Your task to perform on an android device: Clear the cart on costco. Add logitech g pro to the cart on costco, then select checkout. Image 0: 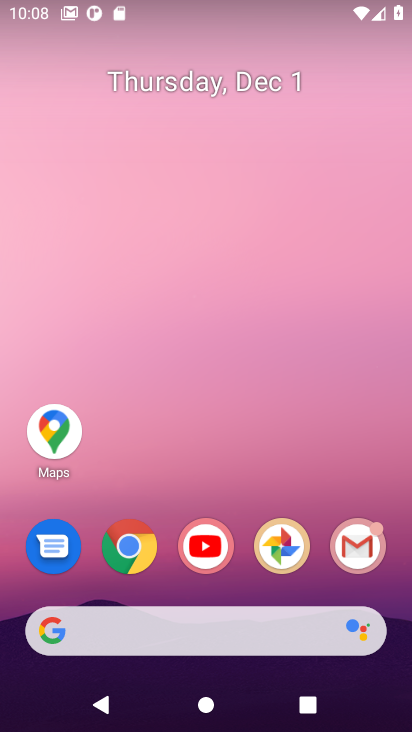
Step 0: click (135, 550)
Your task to perform on an android device: Clear the cart on costco. Add logitech g pro to the cart on costco, then select checkout. Image 1: 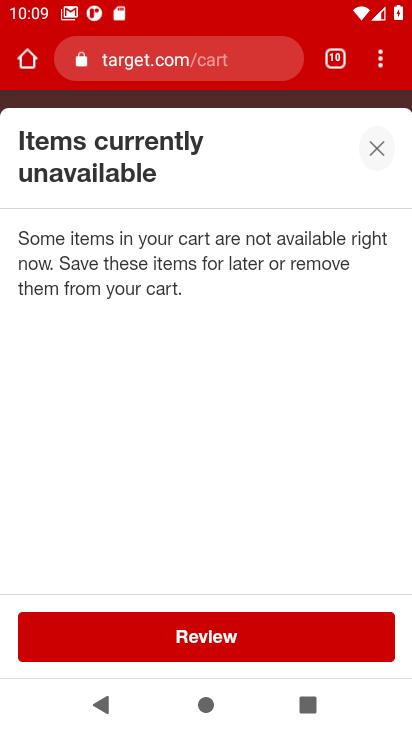
Step 1: press home button
Your task to perform on an android device: Clear the cart on costco. Add logitech g pro to the cart on costco, then select checkout. Image 2: 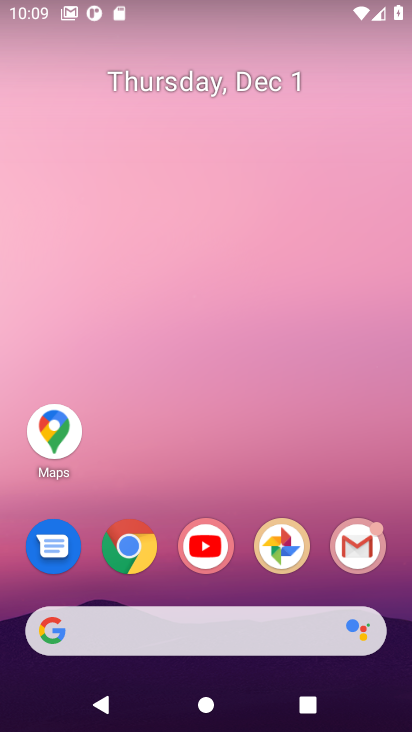
Step 2: click (127, 550)
Your task to perform on an android device: Clear the cart on costco. Add logitech g pro to the cart on costco, then select checkout. Image 3: 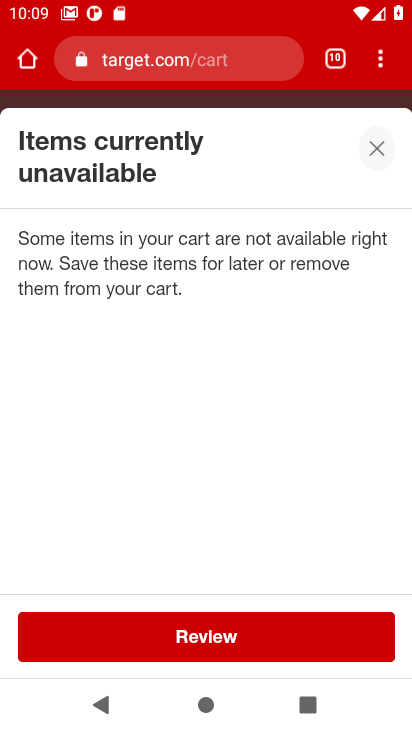
Step 3: click (145, 63)
Your task to perform on an android device: Clear the cart on costco. Add logitech g pro to the cart on costco, then select checkout. Image 4: 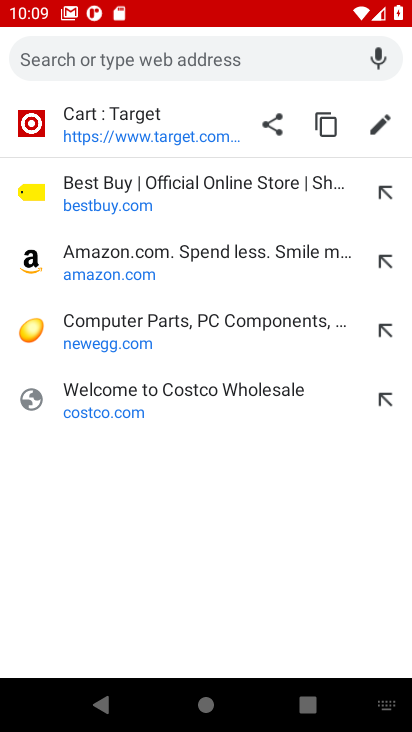
Step 4: click (84, 399)
Your task to perform on an android device: Clear the cart on costco. Add logitech g pro to the cart on costco, then select checkout. Image 5: 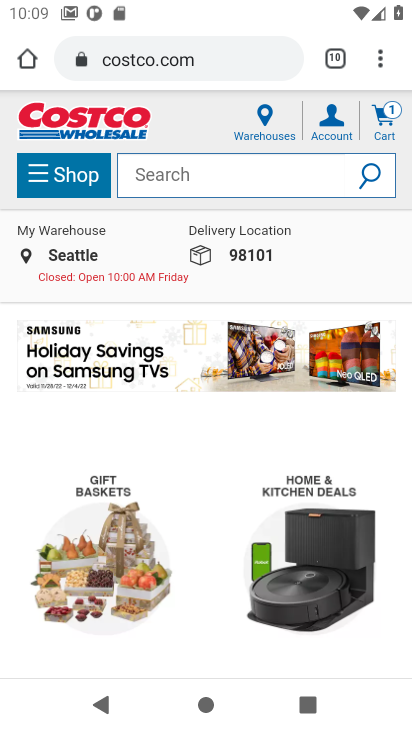
Step 5: click (389, 117)
Your task to perform on an android device: Clear the cart on costco. Add logitech g pro to the cart on costco, then select checkout. Image 6: 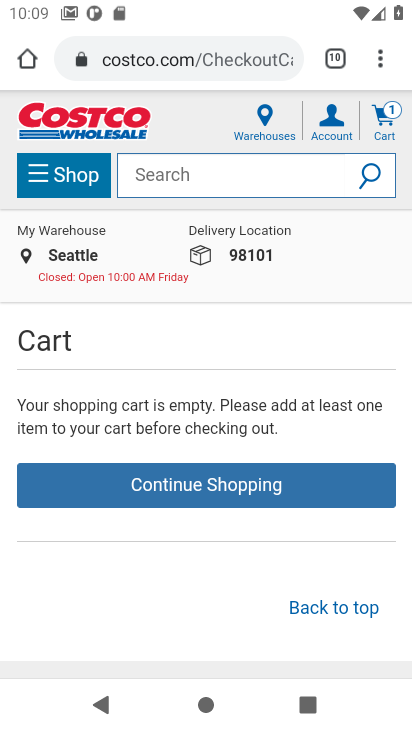
Step 6: click (129, 171)
Your task to perform on an android device: Clear the cart on costco. Add logitech g pro to the cart on costco, then select checkout. Image 7: 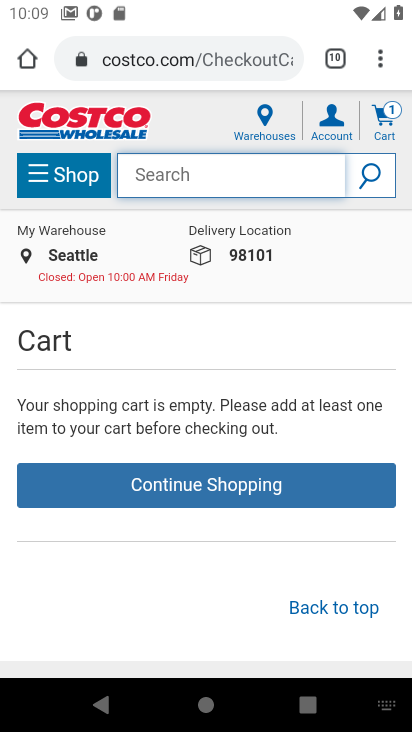
Step 7: type "logitech g pro "
Your task to perform on an android device: Clear the cart on costco. Add logitech g pro to the cart on costco, then select checkout. Image 8: 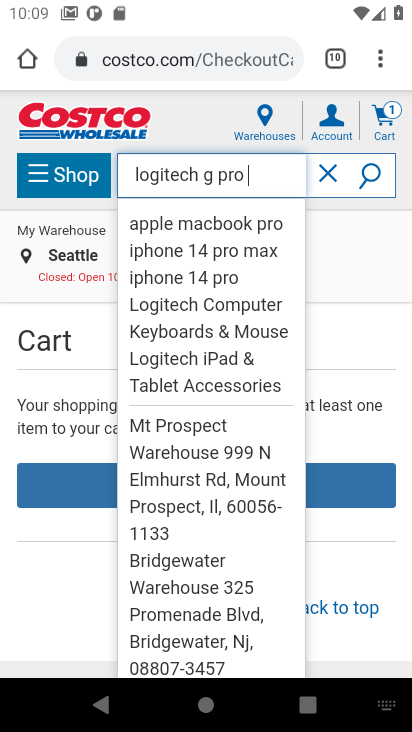
Step 8: click (353, 180)
Your task to perform on an android device: Clear the cart on costco. Add logitech g pro to the cart on costco, then select checkout. Image 9: 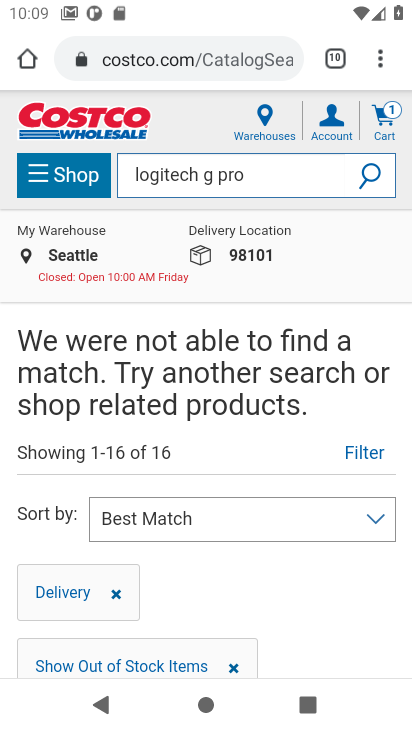
Step 9: task complete